Your task to perform on an android device: see tabs open on other devices in the chrome app Image 0: 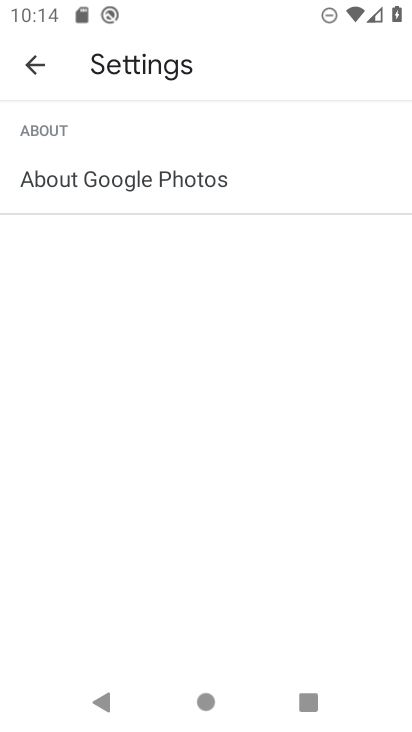
Step 0: press home button
Your task to perform on an android device: see tabs open on other devices in the chrome app Image 1: 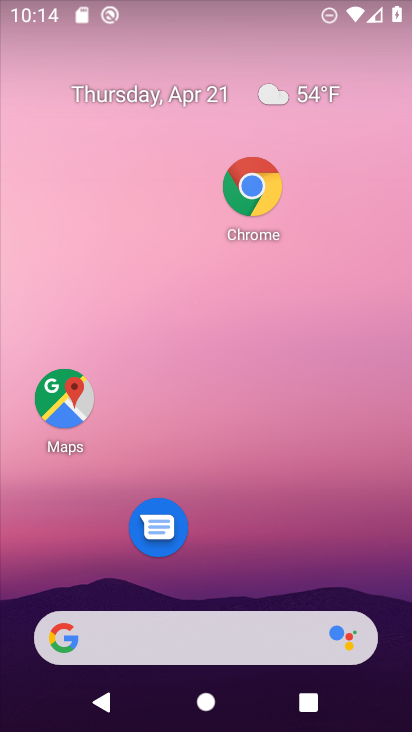
Step 1: click (248, 187)
Your task to perform on an android device: see tabs open on other devices in the chrome app Image 2: 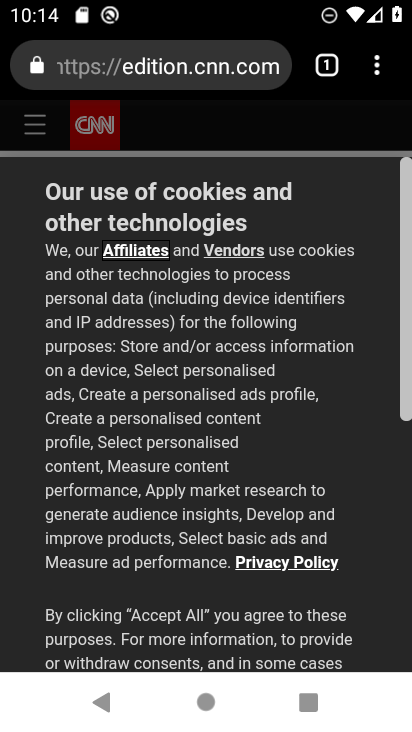
Step 2: task complete